Your task to perform on an android device: Open wifi settings Image 0: 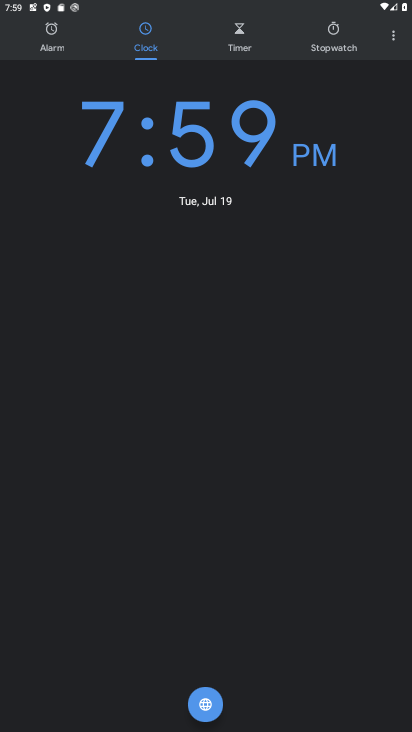
Step 0: press home button
Your task to perform on an android device: Open wifi settings Image 1: 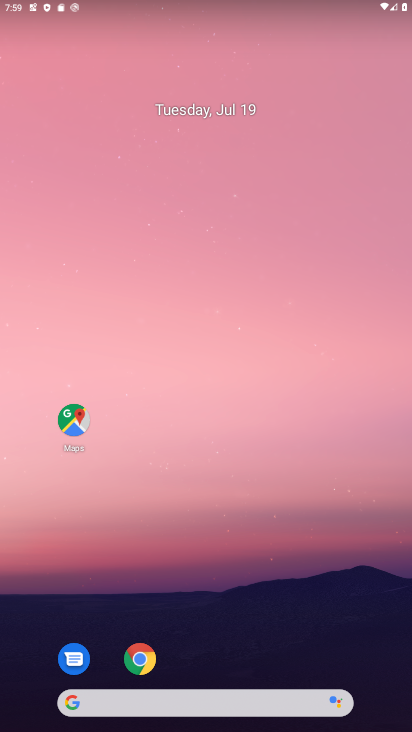
Step 1: drag from (192, 687) to (258, 236)
Your task to perform on an android device: Open wifi settings Image 2: 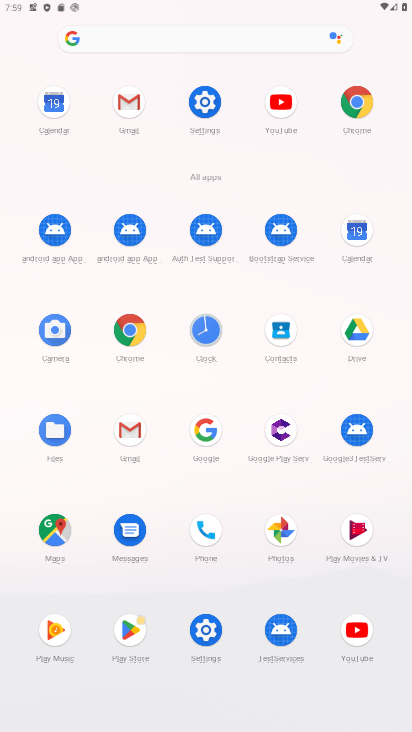
Step 2: click (204, 98)
Your task to perform on an android device: Open wifi settings Image 3: 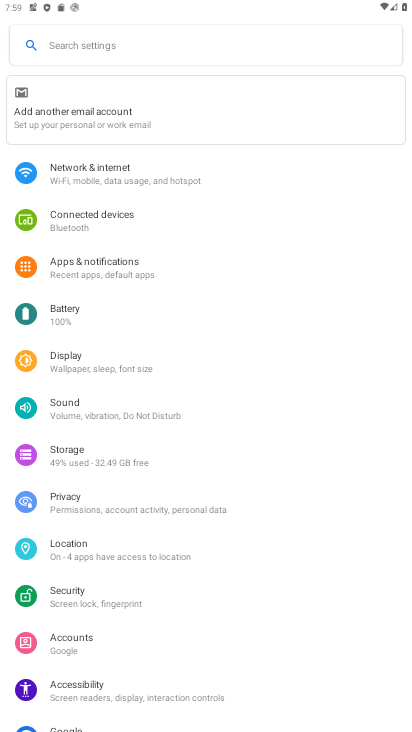
Step 3: click (102, 176)
Your task to perform on an android device: Open wifi settings Image 4: 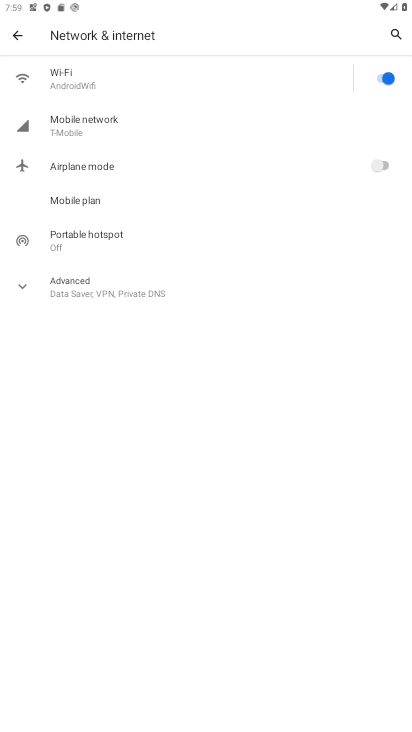
Step 4: click (76, 85)
Your task to perform on an android device: Open wifi settings Image 5: 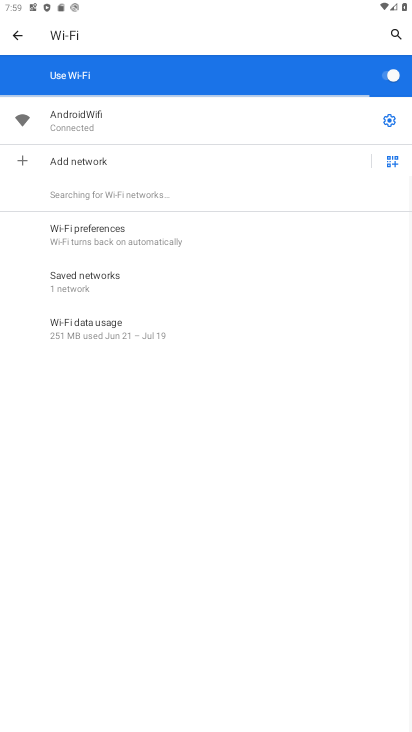
Step 5: click (386, 121)
Your task to perform on an android device: Open wifi settings Image 6: 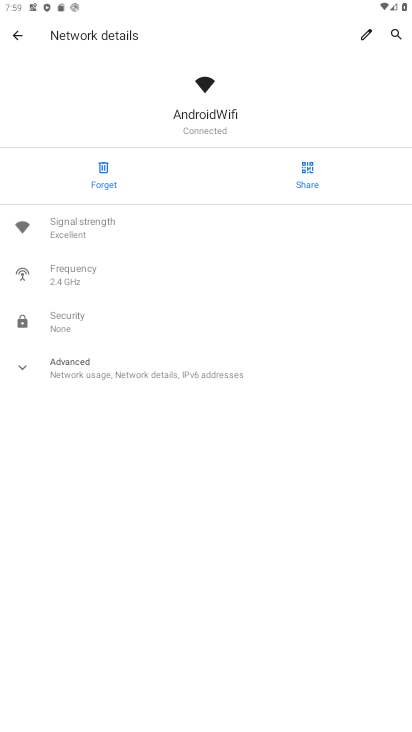
Step 6: click (64, 368)
Your task to perform on an android device: Open wifi settings Image 7: 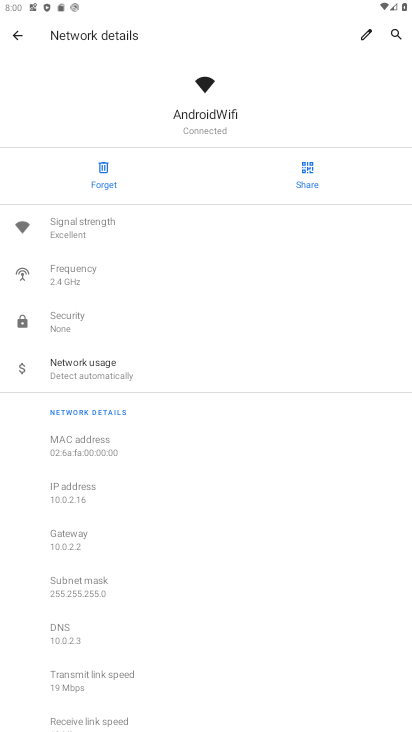
Step 7: task complete